Your task to perform on an android device: empty trash in google photos Image 0: 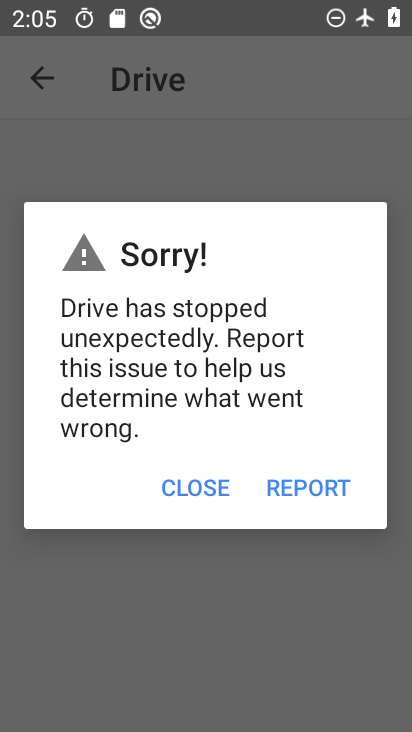
Step 0: press home button
Your task to perform on an android device: empty trash in google photos Image 1: 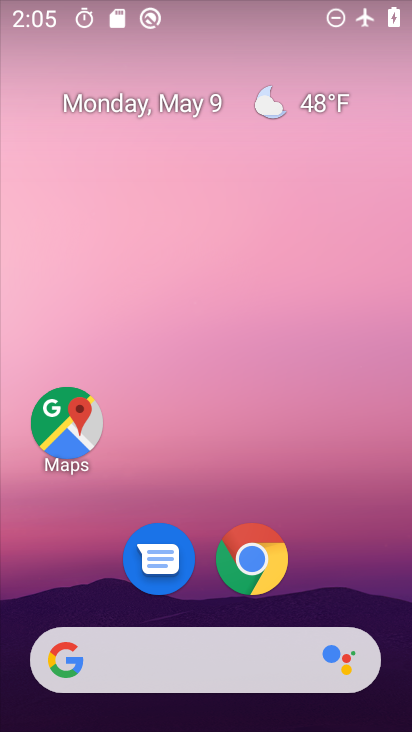
Step 1: drag from (204, 591) to (315, 179)
Your task to perform on an android device: empty trash in google photos Image 2: 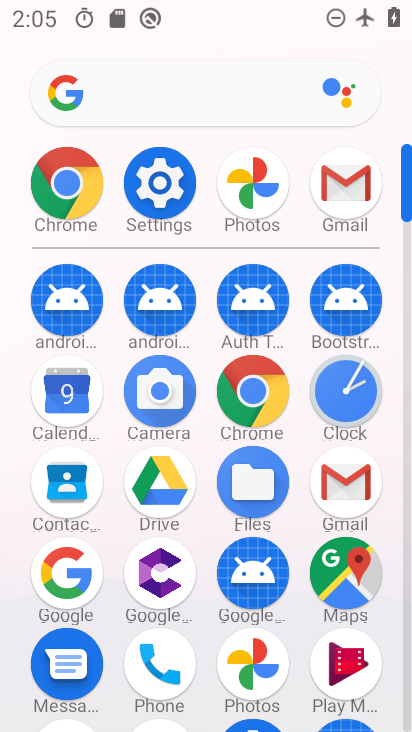
Step 2: click (243, 661)
Your task to perform on an android device: empty trash in google photos Image 3: 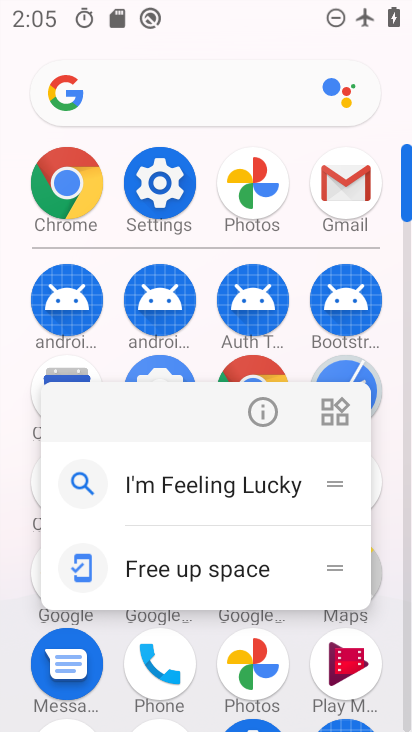
Step 3: click (272, 403)
Your task to perform on an android device: empty trash in google photos Image 4: 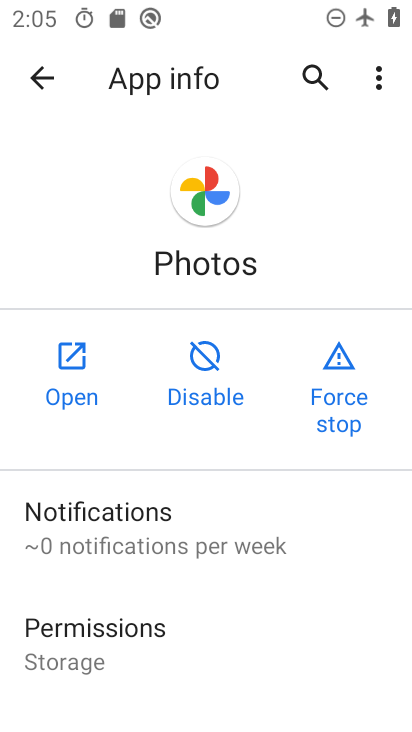
Step 4: click (88, 372)
Your task to perform on an android device: empty trash in google photos Image 5: 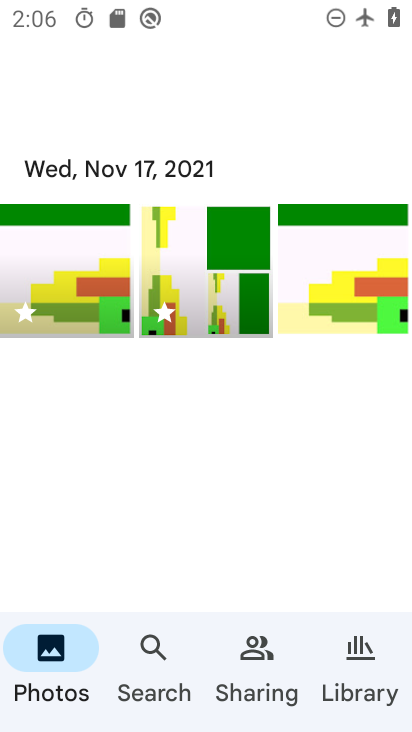
Step 5: click (330, 663)
Your task to perform on an android device: empty trash in google photos Image 6: 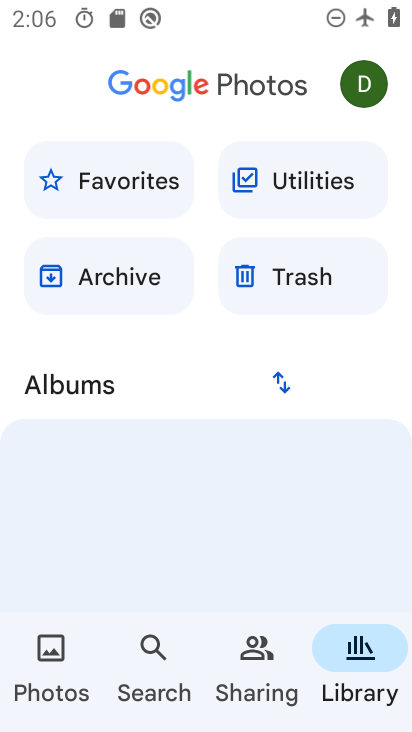
Step 6: click (282, 267)
Your task to perform on an android device: empty trash in google photos Image 7: 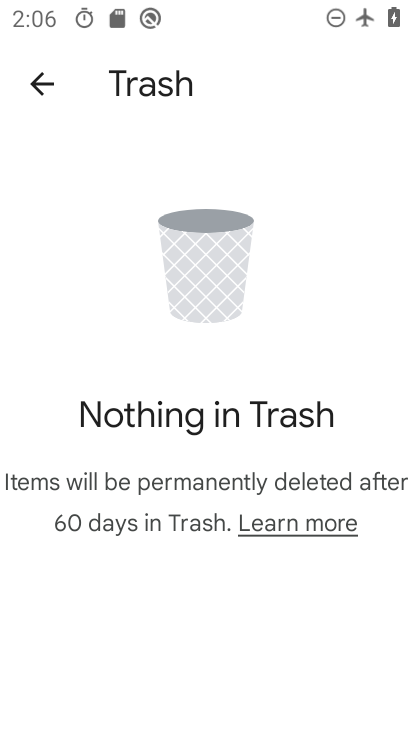
Step 7: task complete